Your task to perform on an android device: choose inbox layout in the gmail app Image 0: 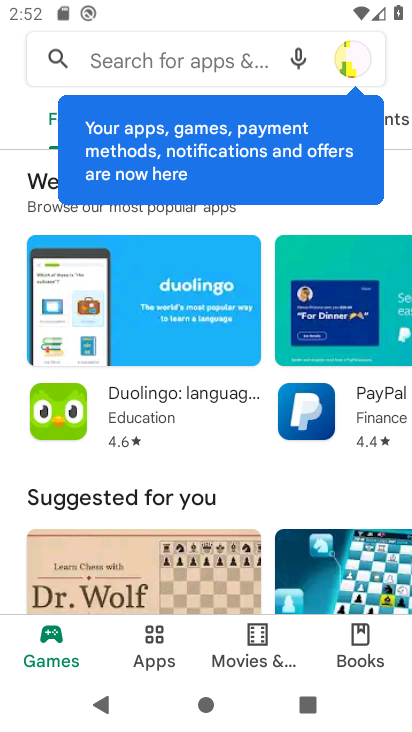
Step 0: press home button
Your task to perform on an android device: choose inbox layout in the gmail app Image 1: 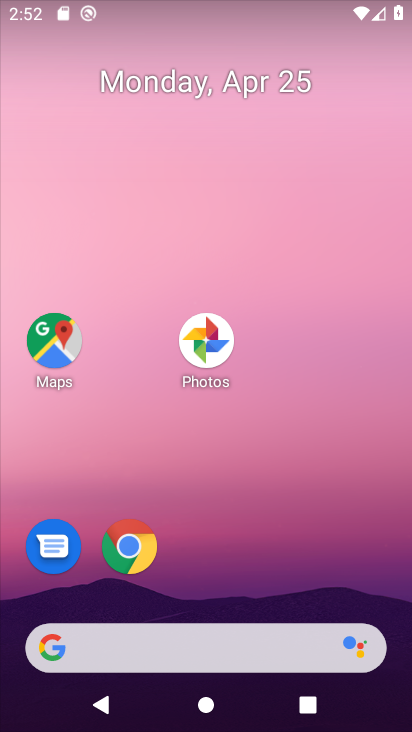
Step 1: drag from (318, 394) to (309, 255)
Your task to perform on an android device: choose inbox layout in the gmail app Image 2: 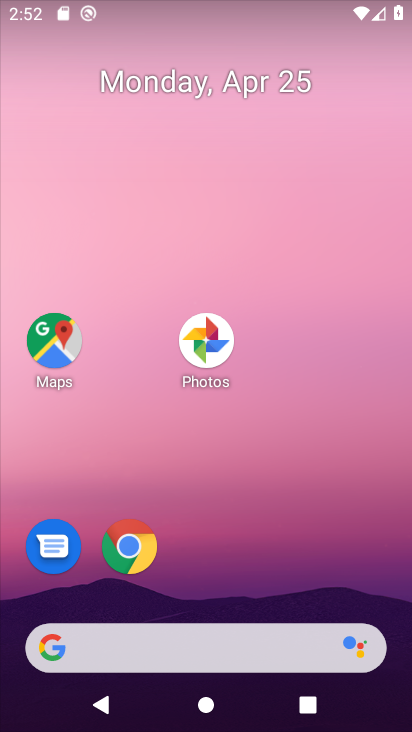
Step 2: drag from (259, 467) to (249, 183)
Your task to perform on an android device: choose inbox layout in the gmail app Image 3: 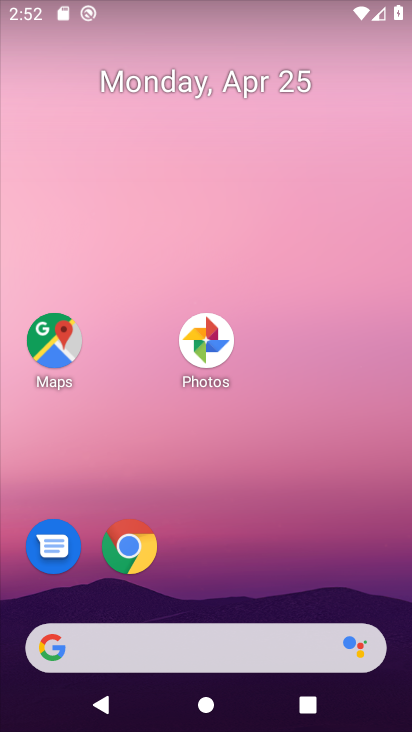
Step 3: drag from (241, 533) to (277, 118)
Your task to perform on an android device: choose inbox layout in the gmail app Image 4: 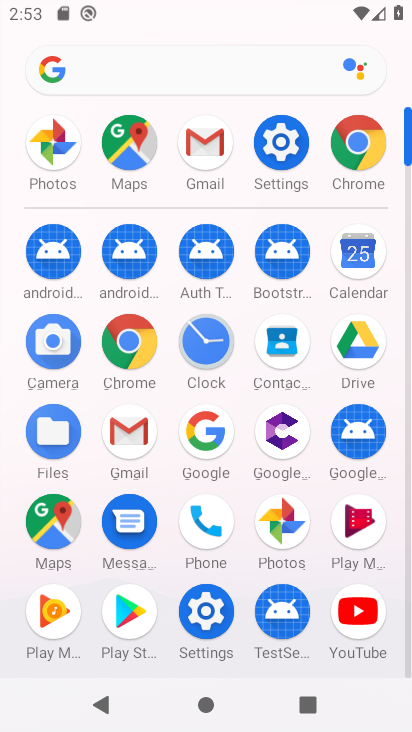
Step 4: click (117, 427)
Your task to perform on an android device: choose inbox layout in the gmail app Image 5: 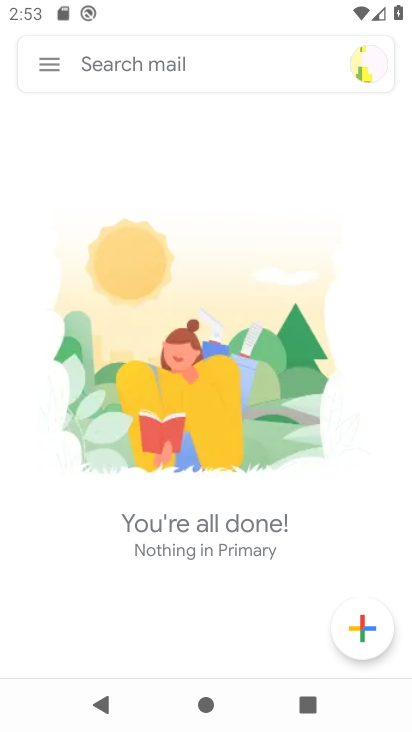
Step 5: click (54, 60)
Your task to perform on an android device: choose inbox layout in the gmail app Image 6: 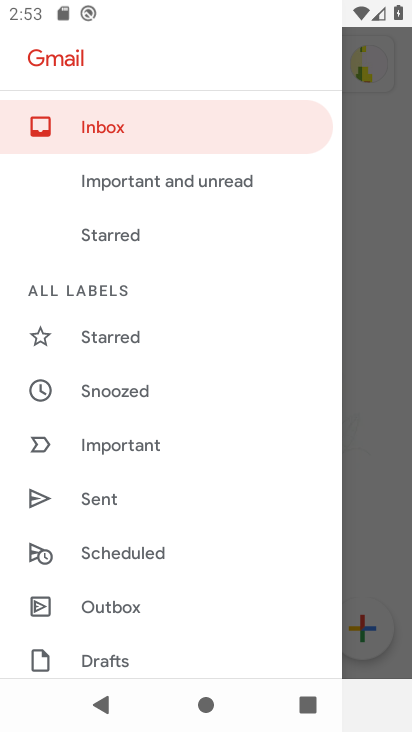
Step 6: drag from (147, 563) to (187, 245)
Your task to perform on an android device: choose inbox layout in the gmail app Image 7: 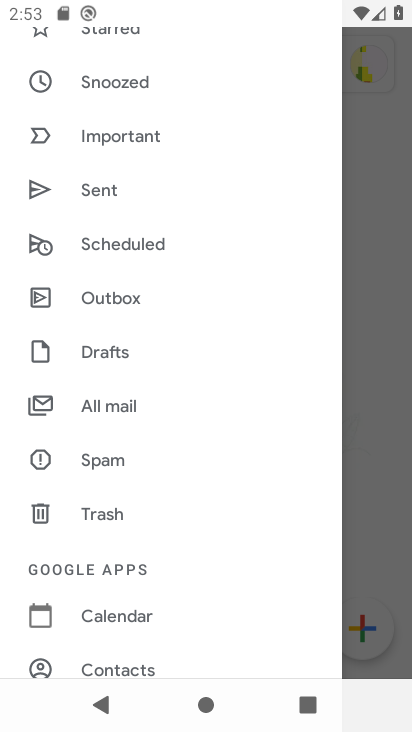
Step 7: drag from (156, 517) to (180, 352)
Your task to perform on an android device: choose inbox layout in the gmail app Image 8: 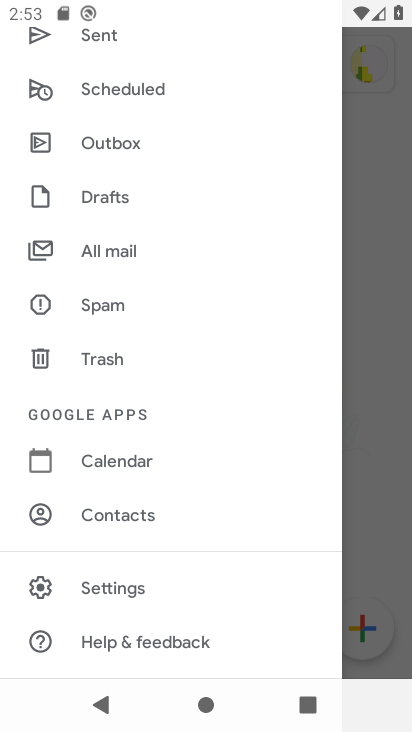
Step 8: click (117, 587)
Your task to perform on an android device: choose inbox layout in the gmail app Image 9: 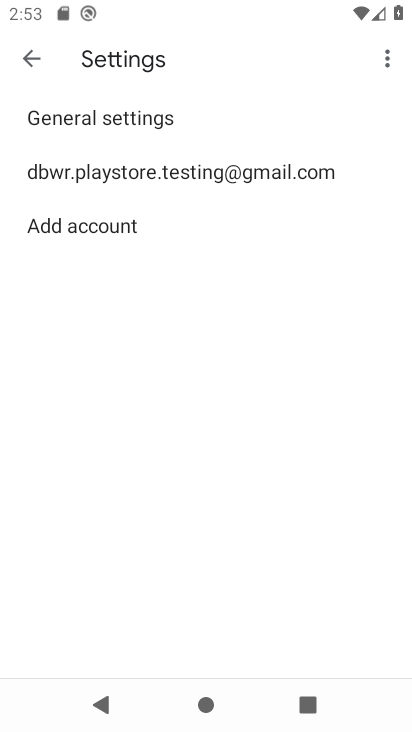
Step 9: click (110, 167)
Your task to perform on an android device: choose inbox layout in the gmail app Image 10: 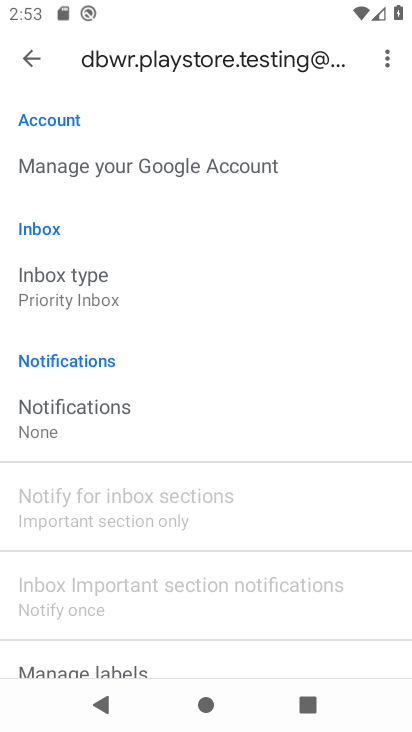
Step 10: click (109, 288)
Your task to perform on an android device: choose inbox layout in the gmail app Image 11: 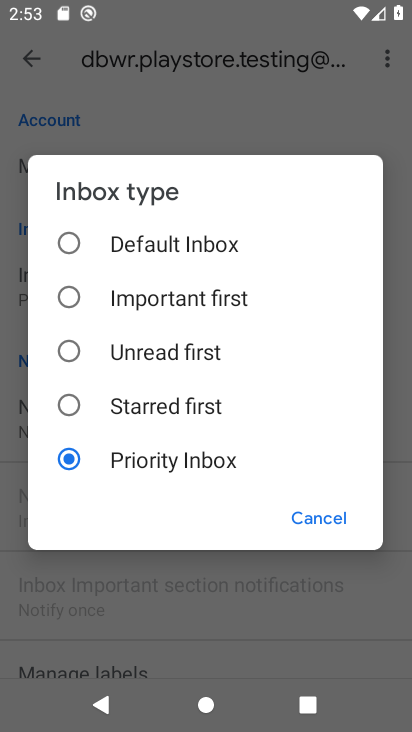
Step 11: click (180, 345)
Your task to perform on an android device: choose inbox layout in the gmail app Image 12: 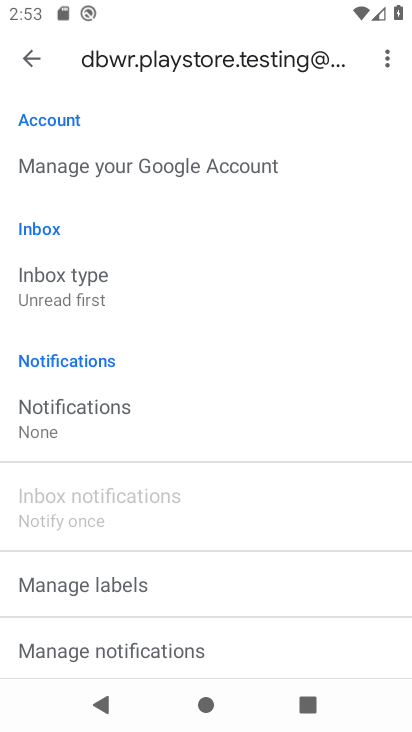
Step 12: task complete